Your task to perform on an android device: Go to calendar. Show me events next week Image 0: 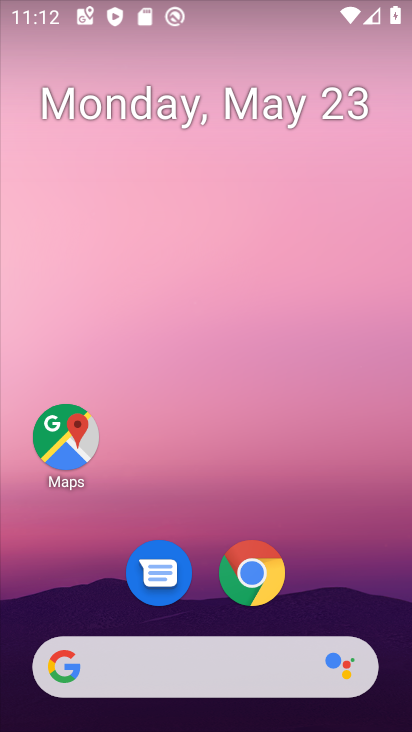
Step 0: drag from (189, 609) to (270, 151)
Your task to perform on an android device: Go to calendar. Show me events next week Image 1: 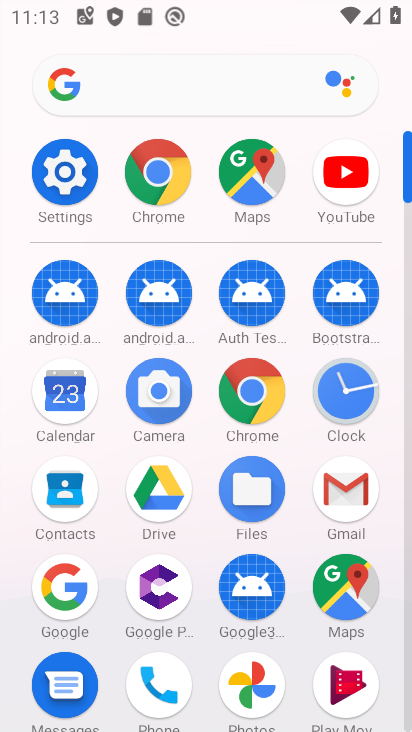
Step 1: click (50, 399)
Your task to perform on an android device: Go to calendar. Show me events next week Image 2: 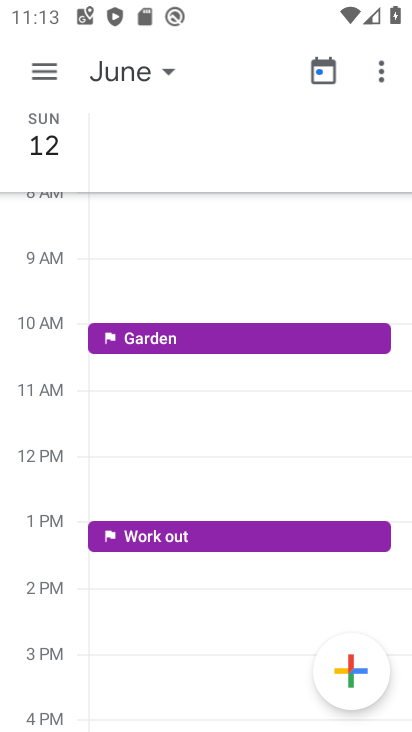
Step 2: click (154, 79)
Your task to perform on an android device: Go to calendar. Show me events next week Image 3: 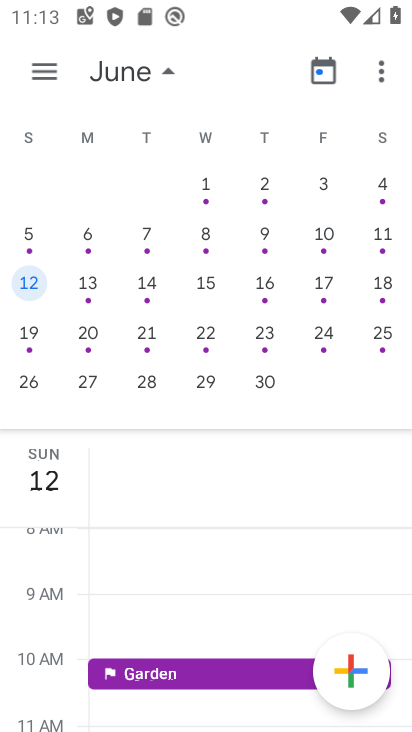
Step 3: drag from (39, 345) to (403, 297)
Your task to perform on an android device: Go to calendar. Show me events next week Image 4: 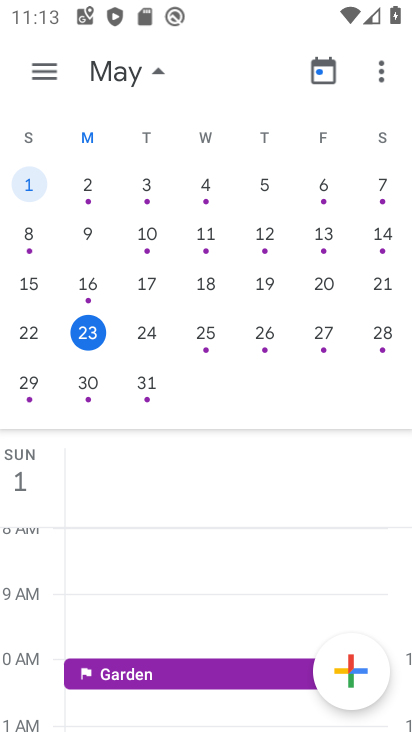
Step 4: drag from (196, 357) to (253, 354)
Your task to perform on an android device: Go to calendar. Show me events next week Image 5: 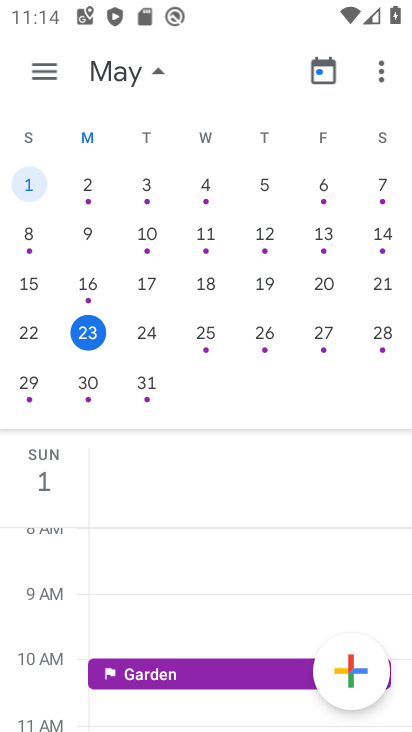
Step 5: click (24, 396)
Your task to perform on an android device: Go to calendar. Show me events next week Image 6: 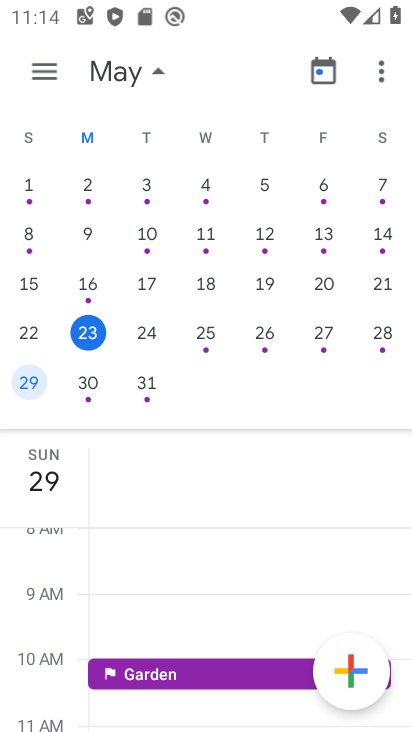
Step 6: task complete